Your task to perform on an android device: Toggle the flashlight Image 0: 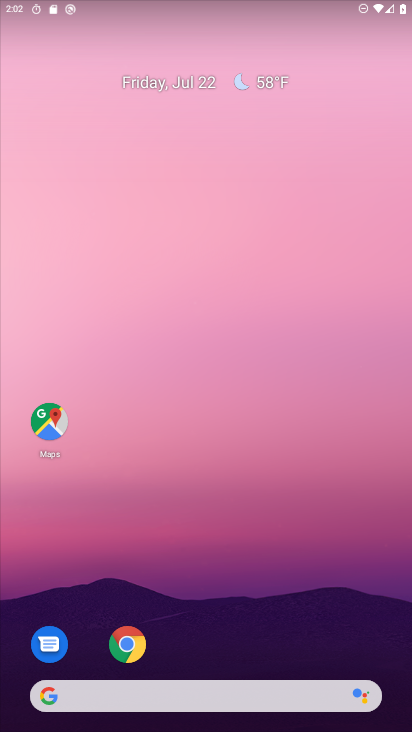
Step 0: drag from (205, 647) to (284, 9)
Your task to perform on an android device: Toggle the flashlight Image 1: 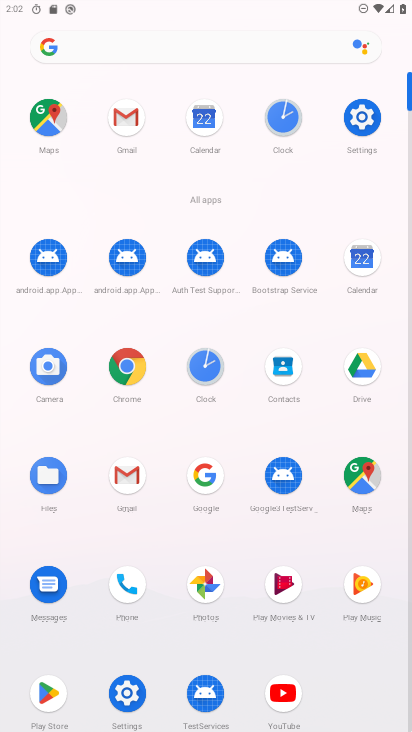
Step 1: click (367, 90)
Your task to perform on an android device: Toggle the flashlight Image 2: 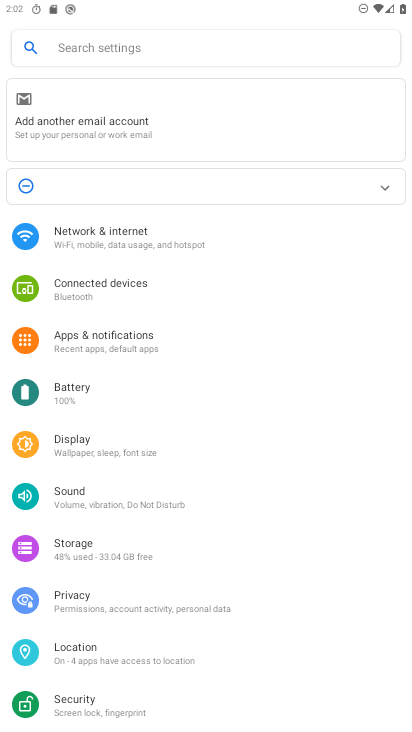
Step 2: task complete